Your task to perform on an android device: Clear all items from cart on target.com. Search for jbl flip 4 on target.com, select the first entry, add it to the cart, then select checkout. Image 0: 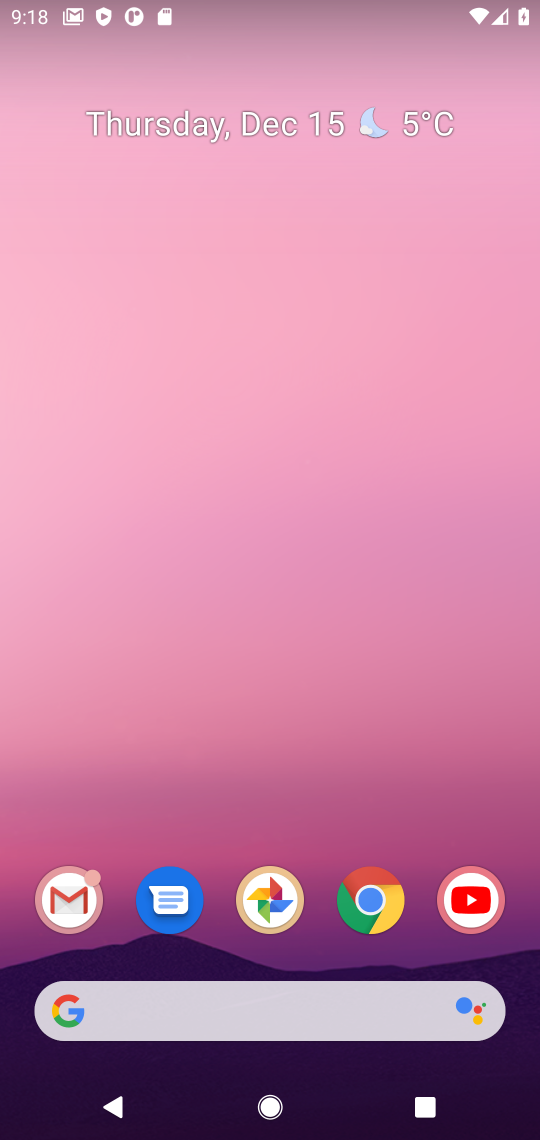
Step 0: click (375, 905)
Your task to perform on an android device: Clear all items from cart on target.com. Search for jbl flip 4 on target.com, select the first entry, add it to the cart, then select checkout. Image 1: 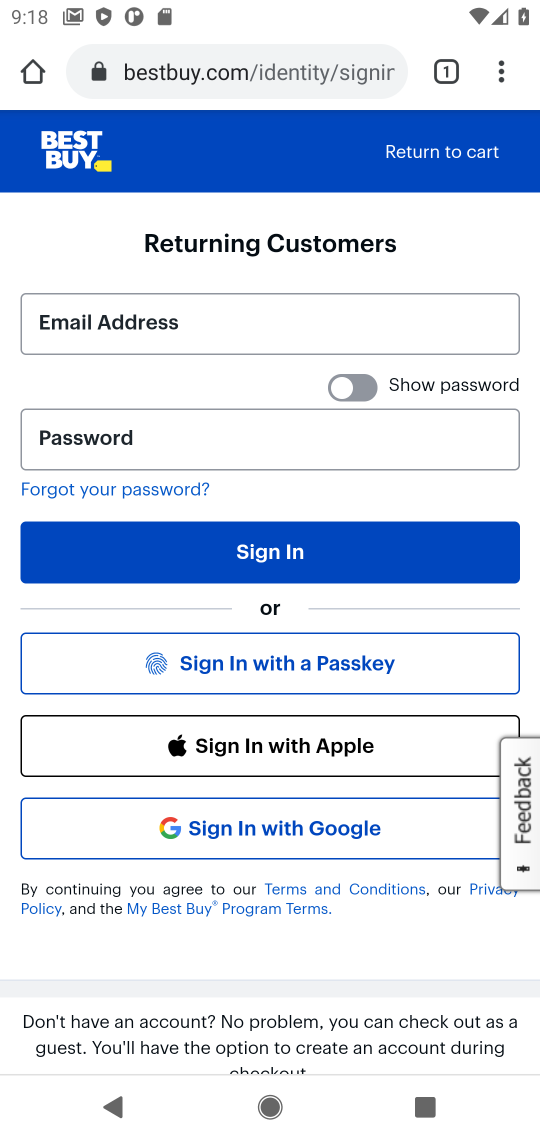
Step 1: click (285, 74)
Your task to perform on an android device: Clear all items from cart on target.com. Search for jbl flip 4 on target.com, select the first entry, add it to the cart, then select checkout. Image 2: 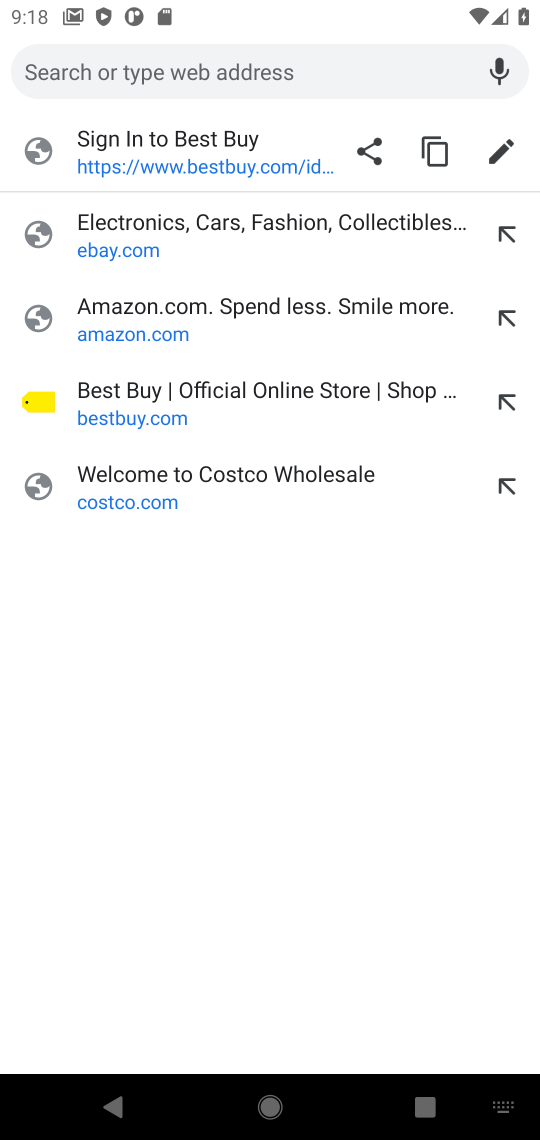
Step 2: type "target.com"
Your task to perform on an android device: Clear all items from cart on target.com. Search for jbl flip 4 on target.com, select the first entry, add it to the cart, then select checkout. Image 3: 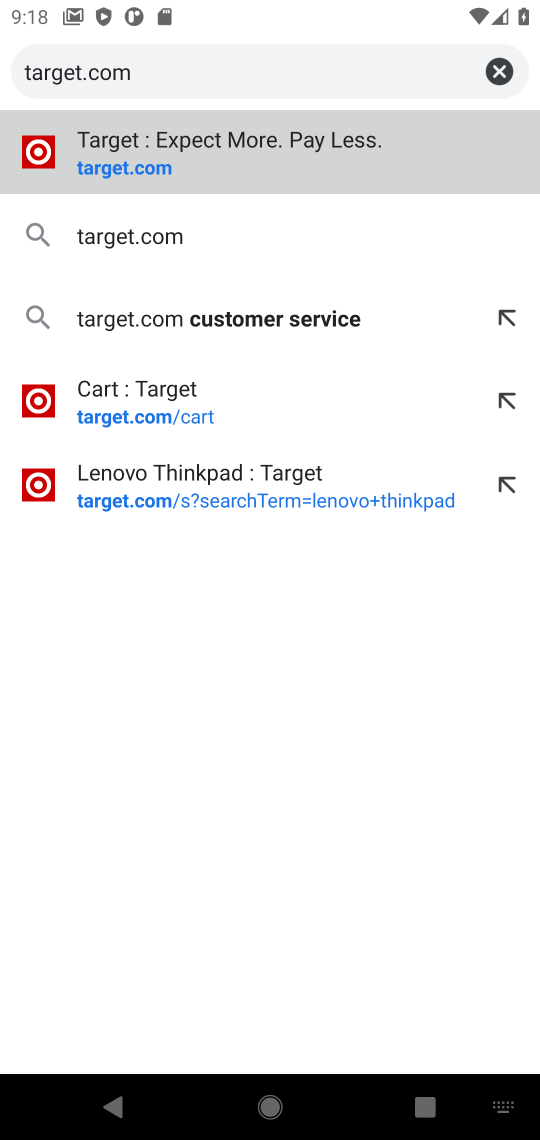
Step 3: press enter
Your task to perform on an android device: Clear all items from cart on target.com. Search for jbl flip 4 on target.com, select the first entry, add it to the cart, then select checkout. Image 4: 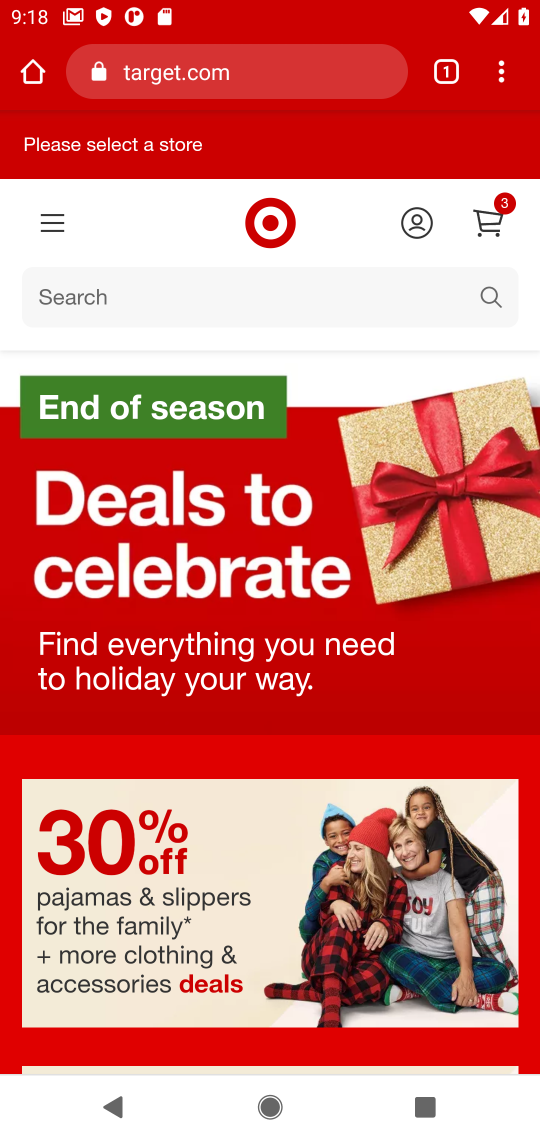
Step 4: click (491, 228)
Your task to perform on an android device: Clear all items from cart on target.com. Search for jbl flip 4 on target.com, select the first entry, add it to the cart, then select checkout. Image 5: 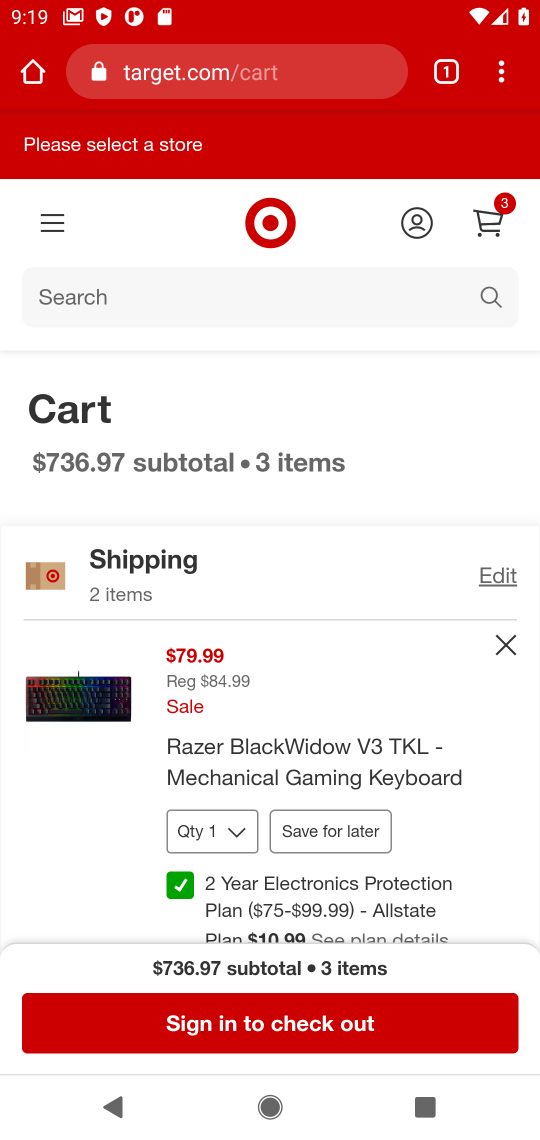
Step 5: click (504, 641)
Your task to perform on an android device: Clear all items from cart on target.com. Search for jbl flip 4 on target.com, select the first entry, add it to the cart, then select checkout. Image 6: 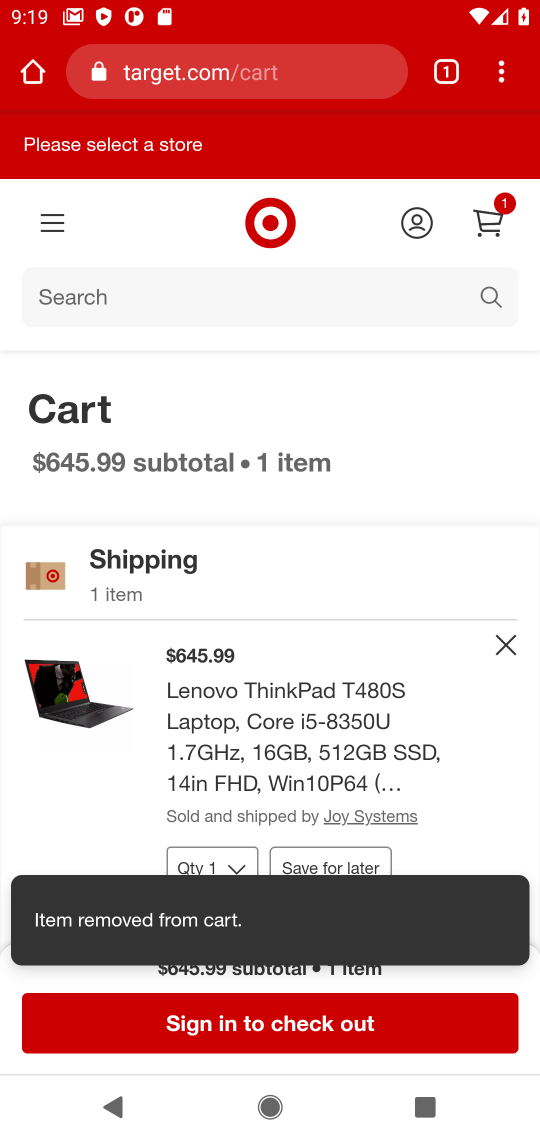
Step 6: click (504, 648)
Your task to perform on an android device: Clear all items from cart on target.com. Search for jbl flip 4 on target.com, select the first entry, add it to the cart, then select checkout. Image 7: 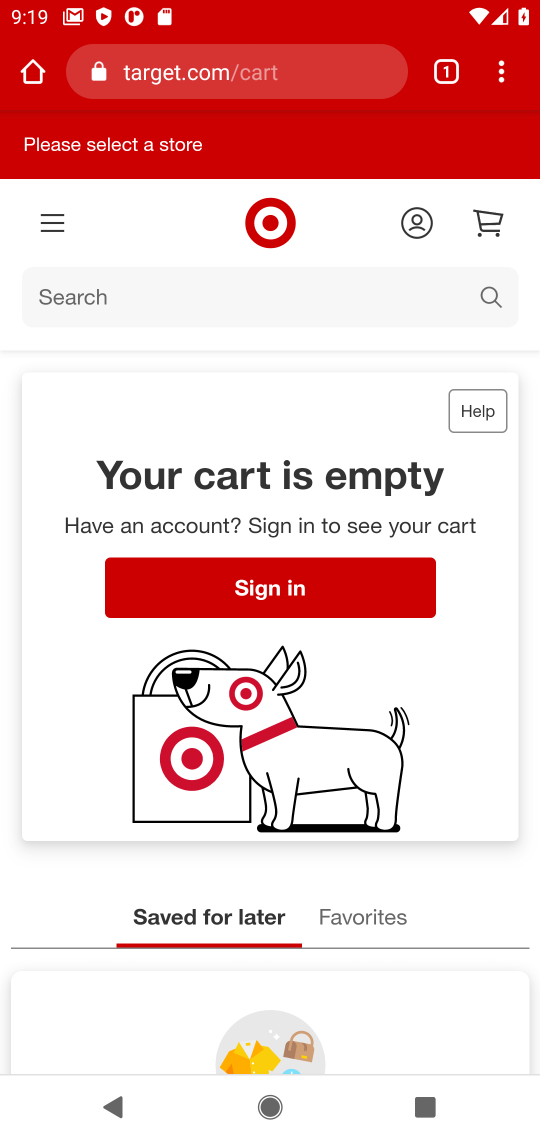
Step 7: click (262, 315)
Your task to perform on an android device: Clear all items from cart on target.com. Search for jbl flip 4 on target.com, select the first entry, add it to the cart, then select checkout. Image 8: 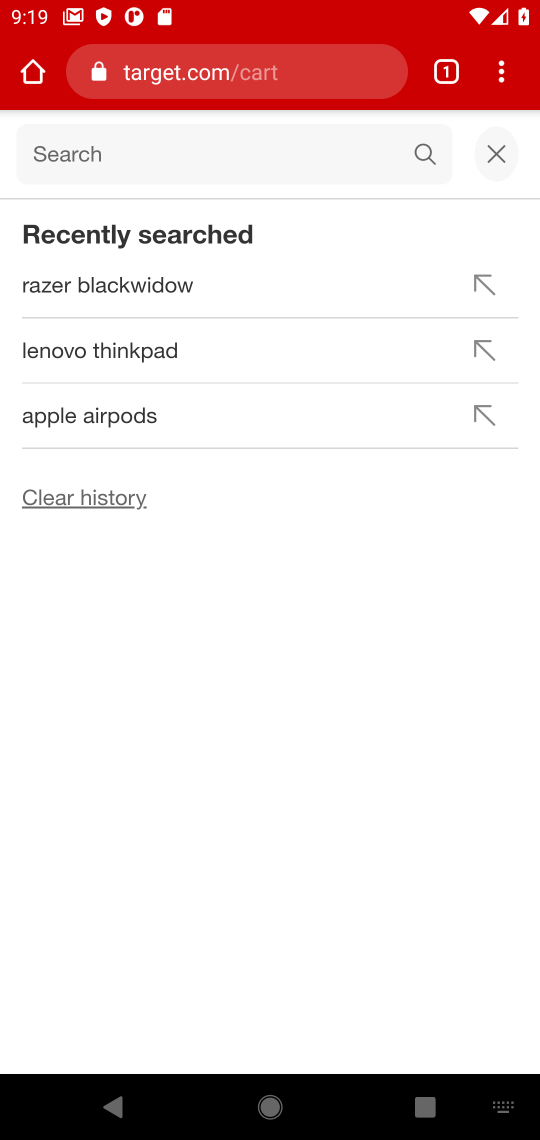
Step 8: type "jbl flip 4"
Your task to perform on an android device: Clear all items from cart on target.com. Search for jbl flip 4 on target.com, select the first entry, add it to the cart, then select checkout. Image 9: 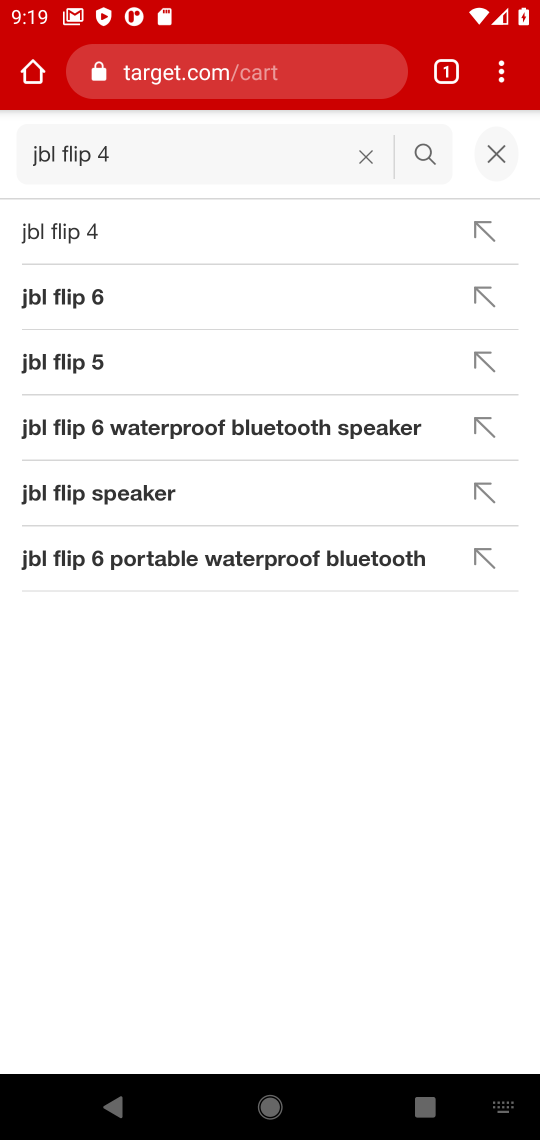
Step 9: click (115, 247)
Your task to perform on an android device: Clear all items from cart on target.com. Search for jbl flip 4 on target.com, select the first entry, add it to the cart, then select checkout. Image 10: 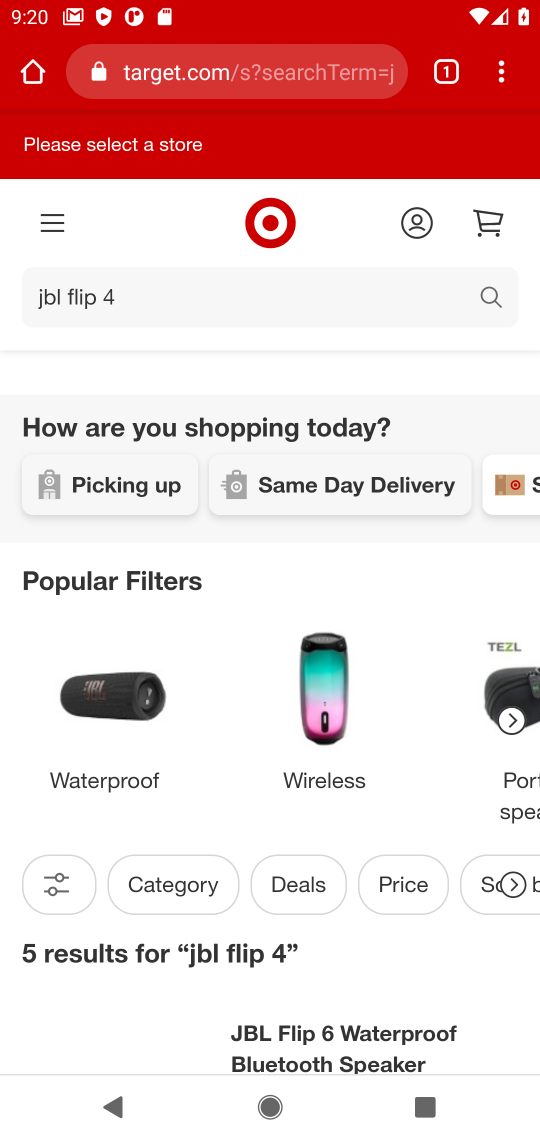
Step 10: task complete